Your task to perform on an android device: Open calendar and show me the third week of next month Image 0: 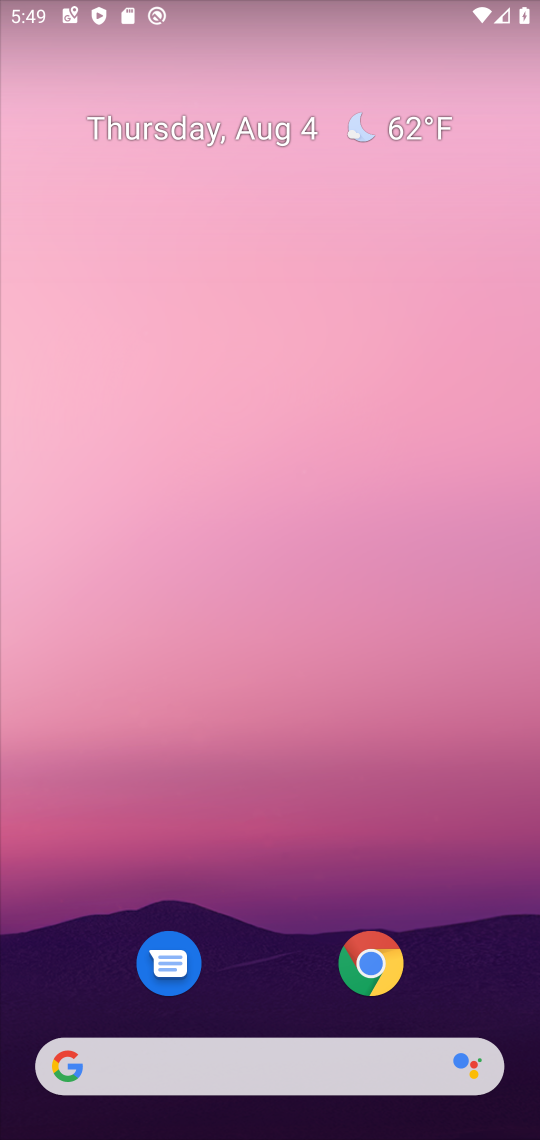
Step 0: drag from (291, 877) to (288, 205)
Your task to perform on an android device: Open calendar and show me the third week of next month Image 1: 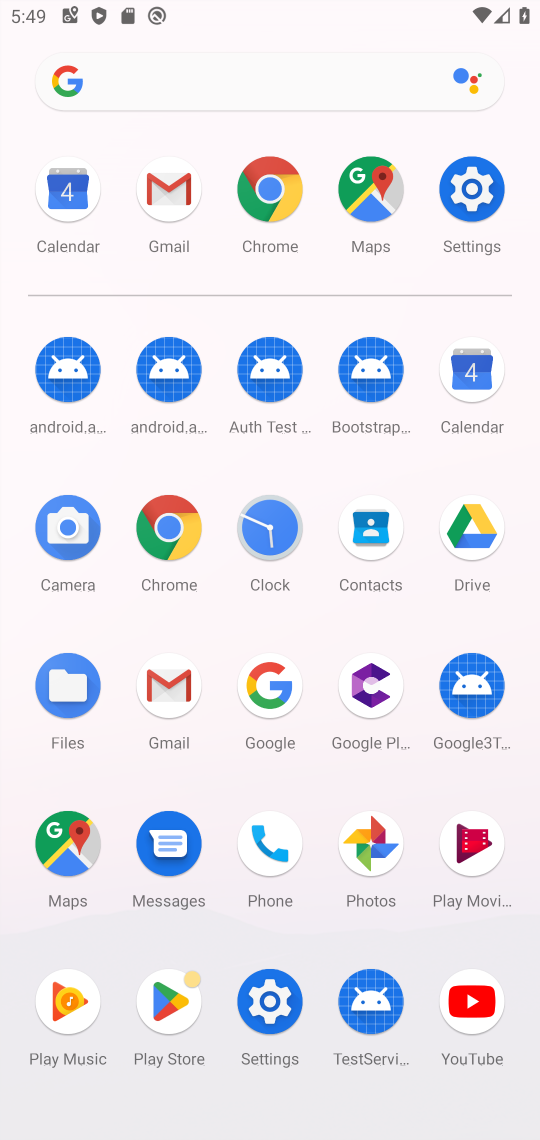
Step 1: click (481, 361)
Your task to perform on an android device: Open calendar and show me the third week of next month Image 2: 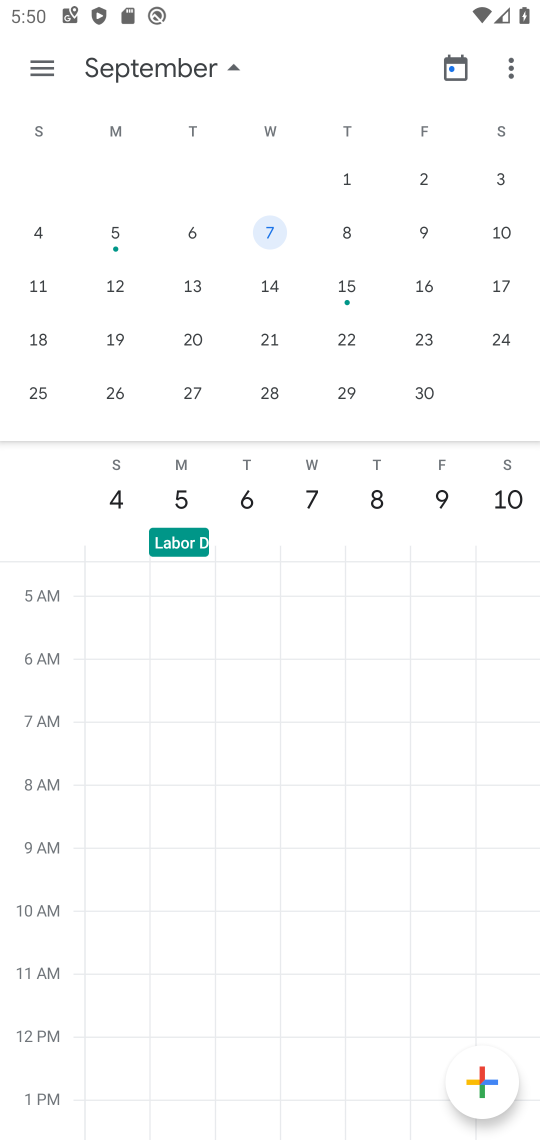
Step 2: click (267, 279)
Your task to perform on an android device: Open calendar and show me the third week of next month Image 3: 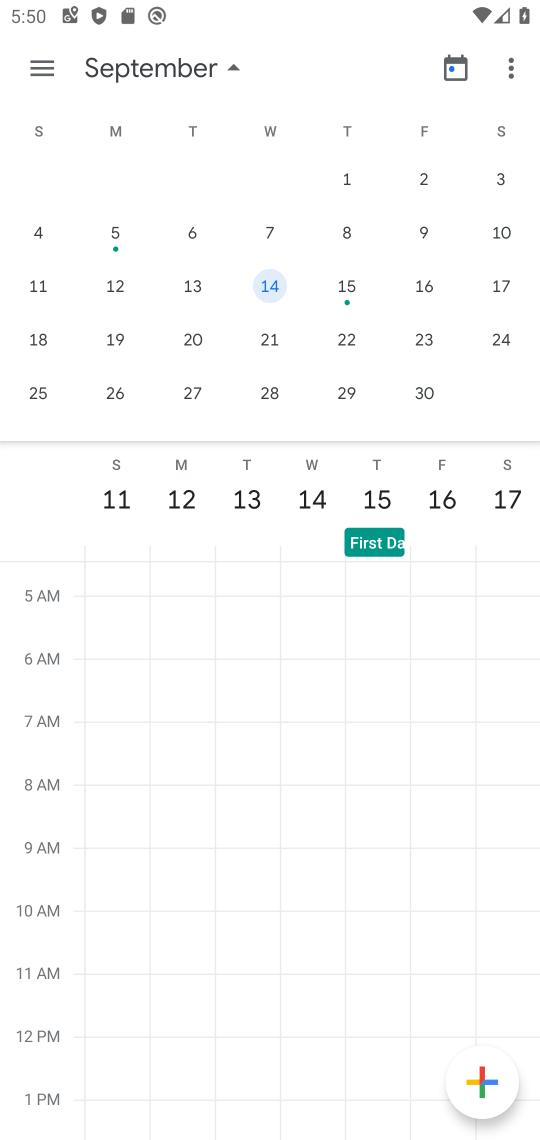
Step 3: task complete